Your task to perform on an android device: Go to settings Image 0: 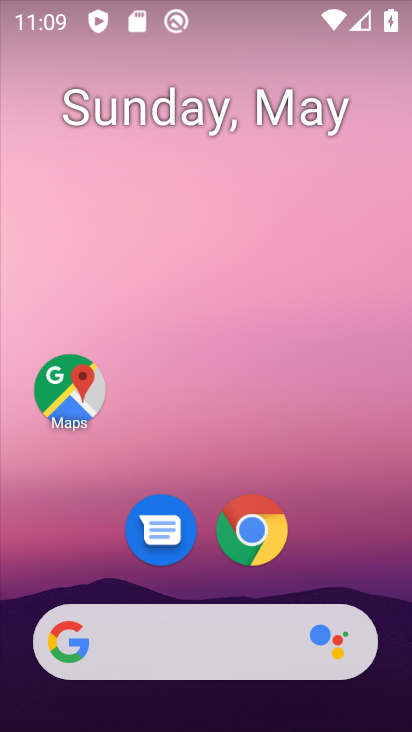
Step 0: drag from (160, 369) to (232, 147)
Your task to perform on an android device: Go to settings Image 1: 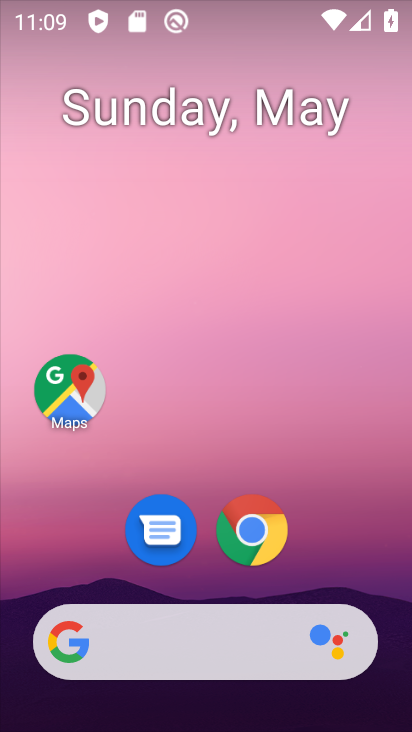
Step 1: drag from (222, 459) to (251, 95)
Your task to perform on an android device: Go to settings Image 2: 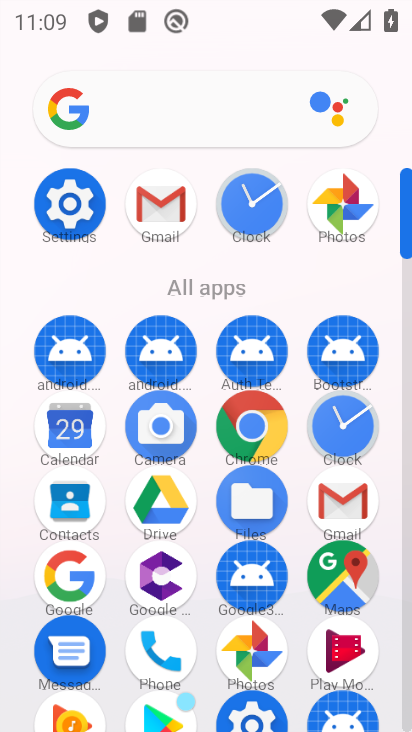
Step 2: click (80, 209)
Your task to perform on an android device: Go to settings Image 3: 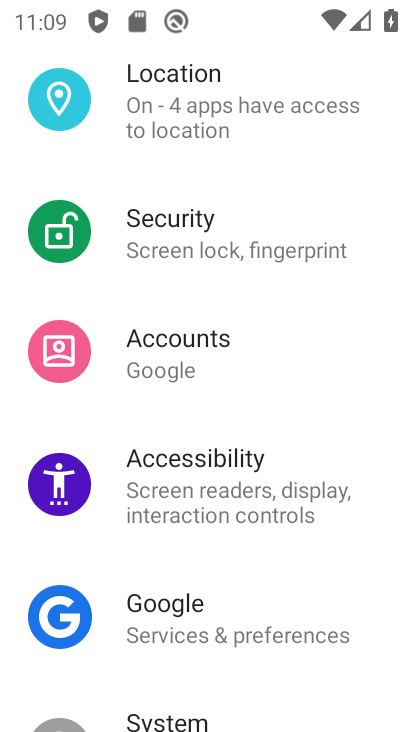
Step 3: task complete